Your task to perform on an android device: When is my next appointment? Image 0: 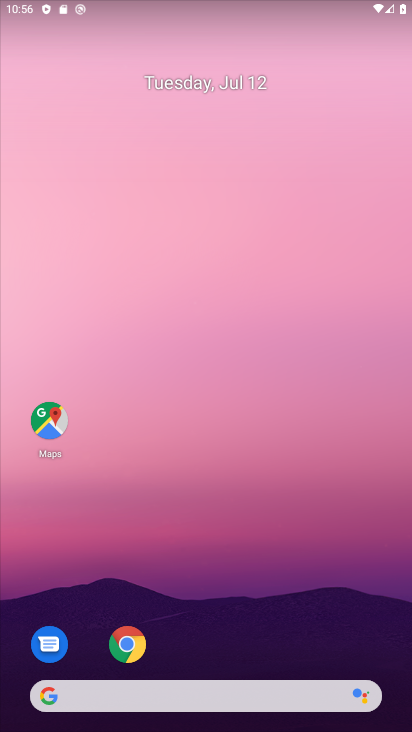
Step 0: drag from (256, 700) to (316, 289)
Your task to perform on an android device: When is my next appointment? Image 1: 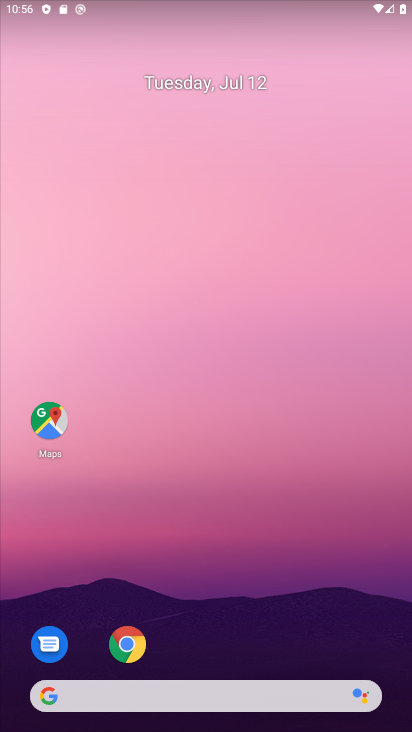
Step 1: drag from (200, 637) to (410, 24)
Your task to perform on an android device: When is my next appointment? Image 2: 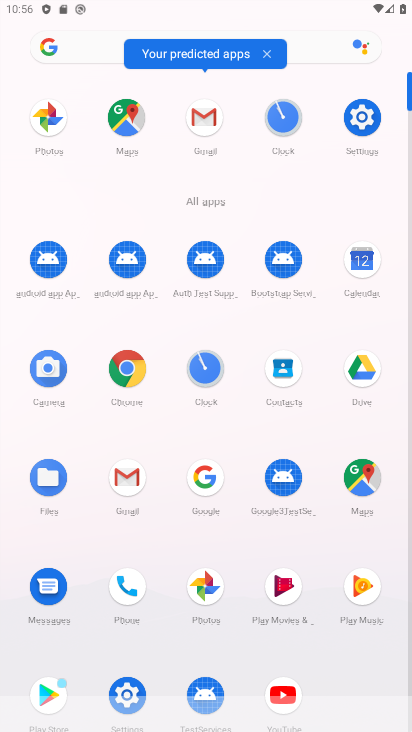
Step 2: click (363, 120)
Your task to perform on an android device: When is my next appointment? Image 3: 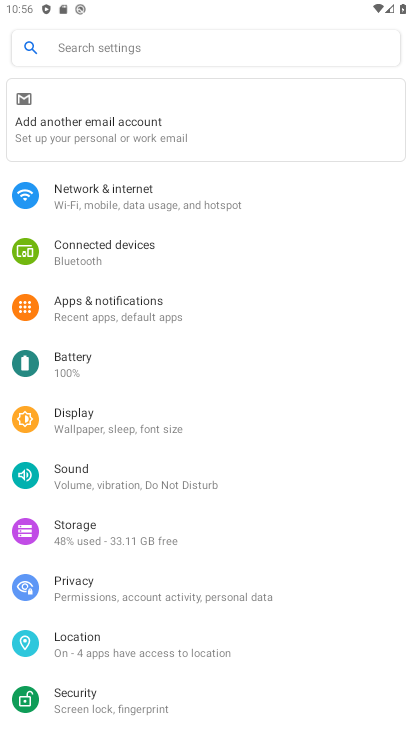
Step 3: press home button
Your task to perform on an android device: When is my next appointment? Image 4: 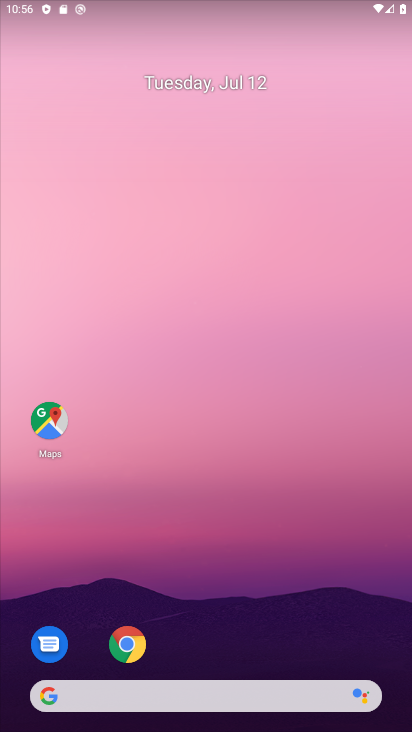
Step 4: drag from (288, 686) to (336, 305)
Your task to perform on an android device: When is my next appointment? Image 5: 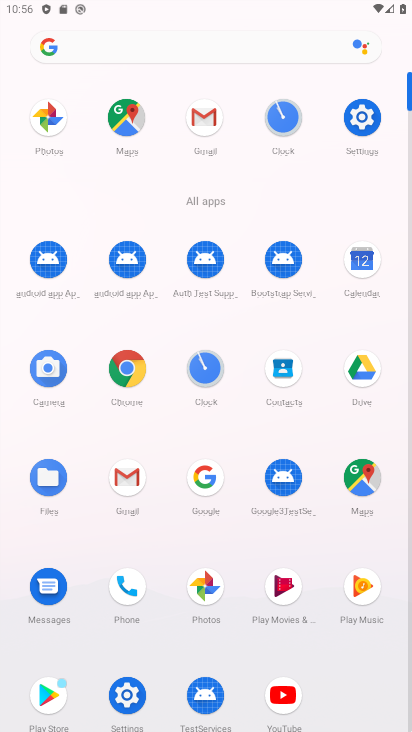
Step 5: click (363, 279)
Your task to perform on an android device: When is my next appointment? Image 6: 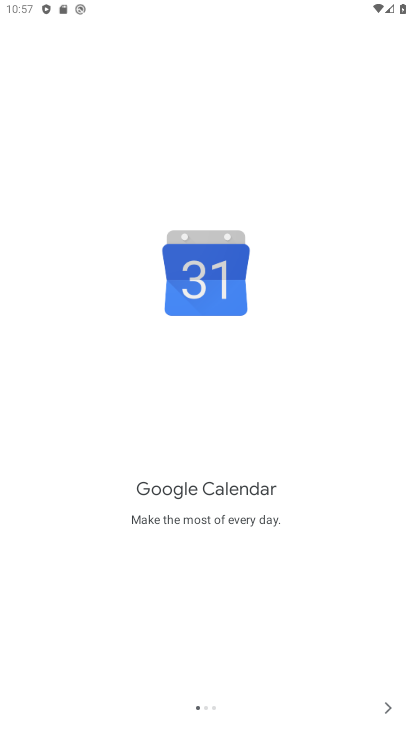
Step 6: click (378, 703)
Your task to perform on an android device: When is my next appointment? Image 7: 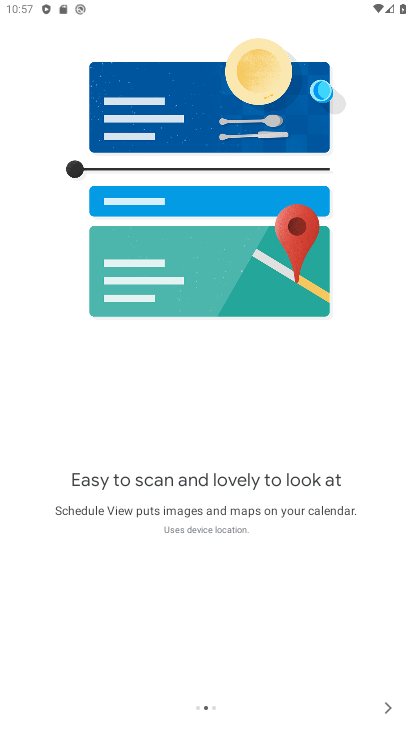
Step 7: click (383, 700)
Your task to perform on an android device: When is my next appointment? Image 8: 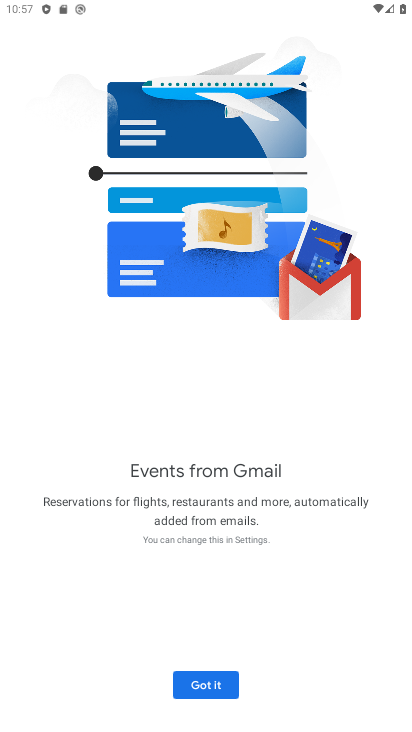
Step 8: click (225, 670)
Your task to perform on an android device: When is my next appointment? Image 9: 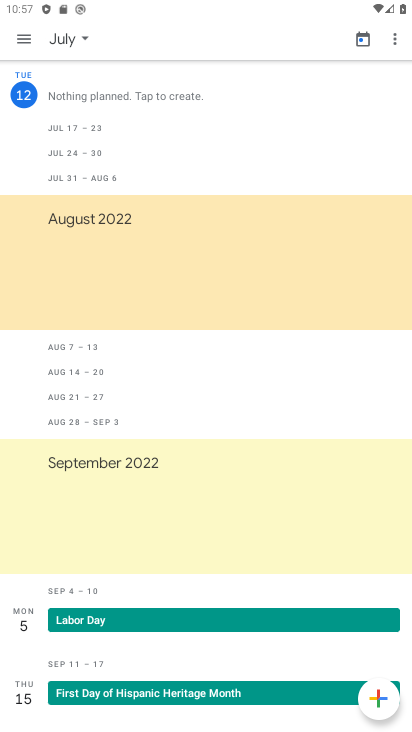
Step 9: click (31, 39)
Your task to perform on an android device: When is my next appointment? Image 10: 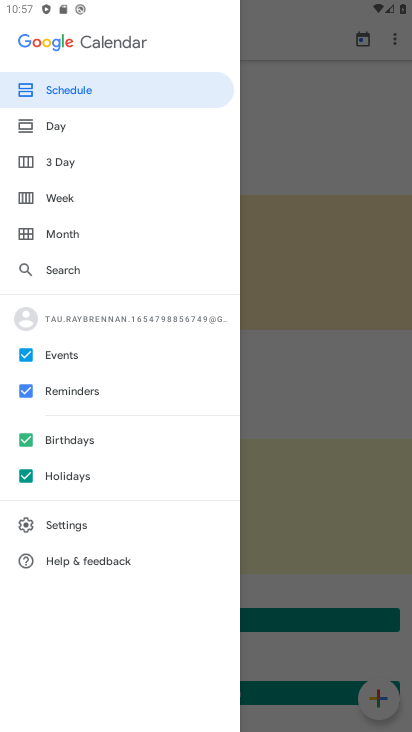
Step 10: click (77, 104)
Your task to perform on an android device: When is my next appointment? Image 11: 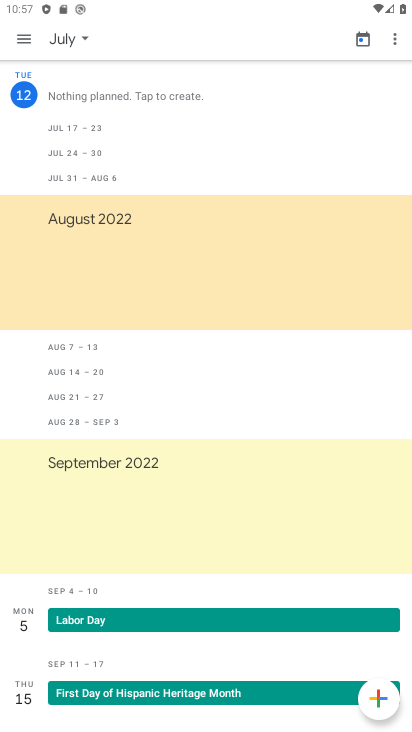
Step 11: task complete